Your task to perform on an android device: Go to battery settings Image 0: 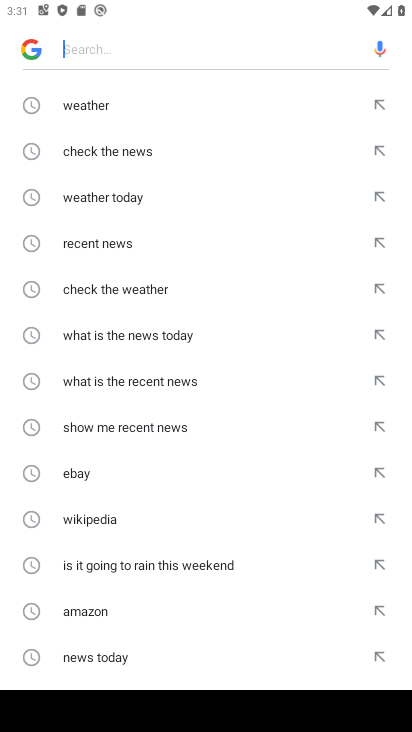
Step 0: press home button
Your task to perform on an android device: Go to battery settings Image 1: 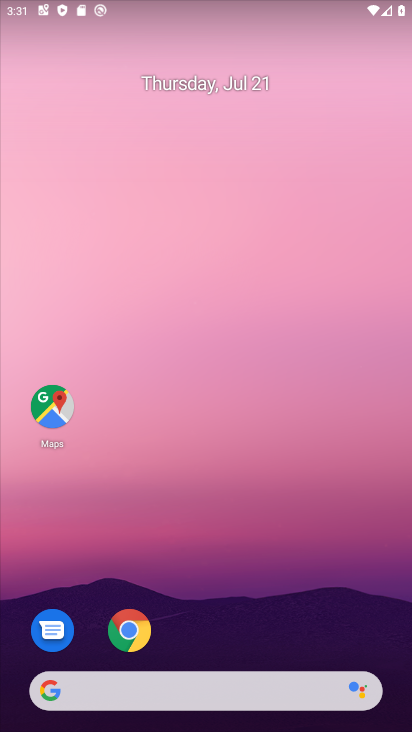
Step 1: drag from (240, 673) to (179, 0)
Your task to perform on an android device: Go to battery settings Image 2: 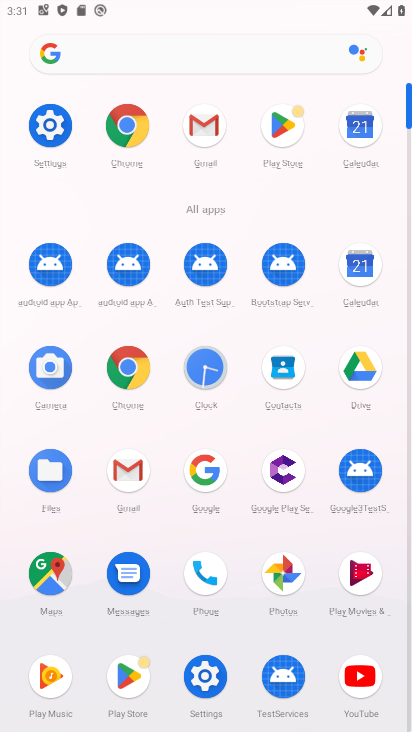
Step 2: click (201, 669)
Your task to perform on an android device: Go to battery settings Image 3: 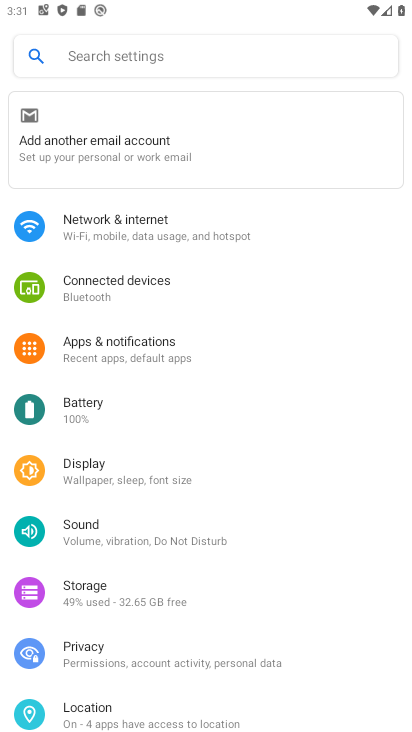
Step 3: click (94, 402)
Your task to perform on an android device: Go to battery settings Image 4: 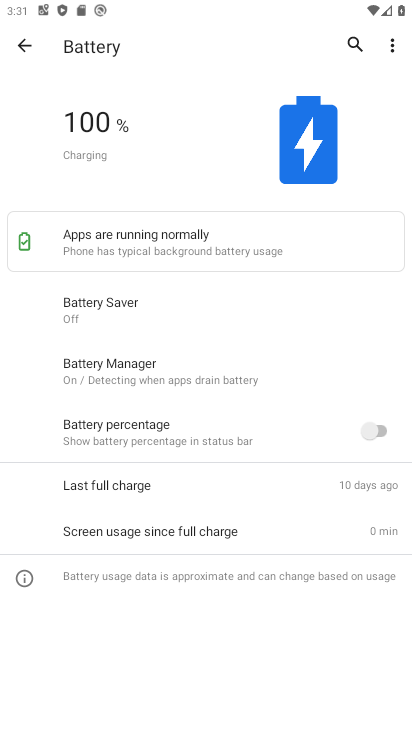
Step 4: task complete